Your task to perform on an android device: Open maps Image 0: 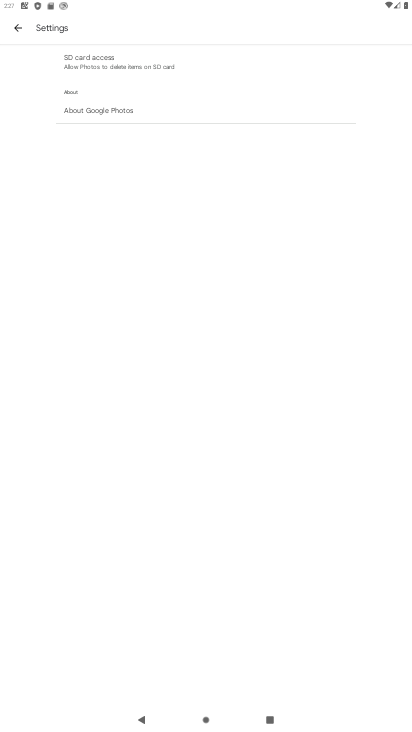
Step 0: press home button
Your task to perform on an android device: Open maps Image 1: 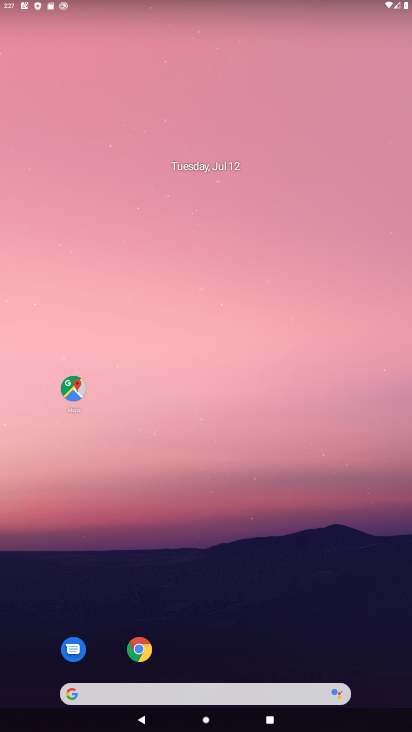
Step 1: click (76, 380)
Your task to perform on an android device: Open maps Image 2: 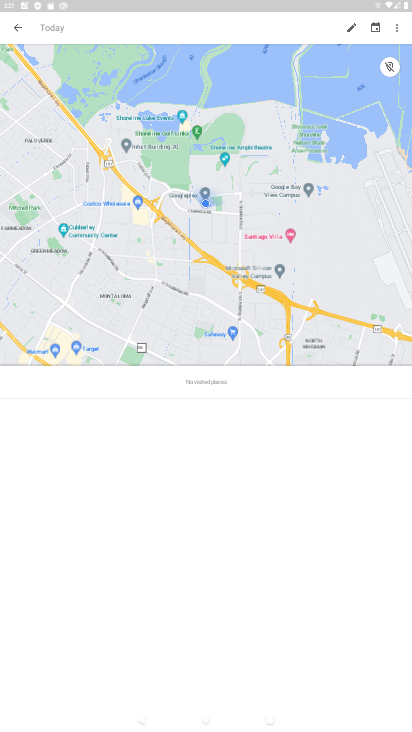
Step 2: task complete